Your task to perform on an android device: choose inbox layout in the gmail app Image 0: 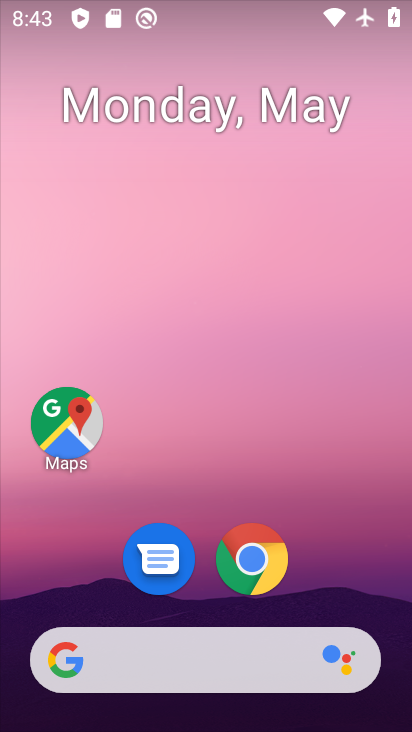
Step 0: drag from (329, 564) to (409, 56)
Your task to perform on an android device: choose inbox layout in the gmail app Image 1: 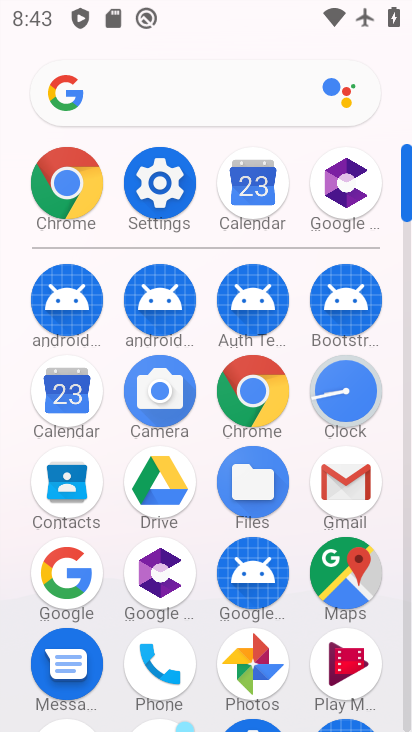
Step 1: click (352, 469)
Your task to perform on an android device: choose inbox layout in the gmail app Image 2: 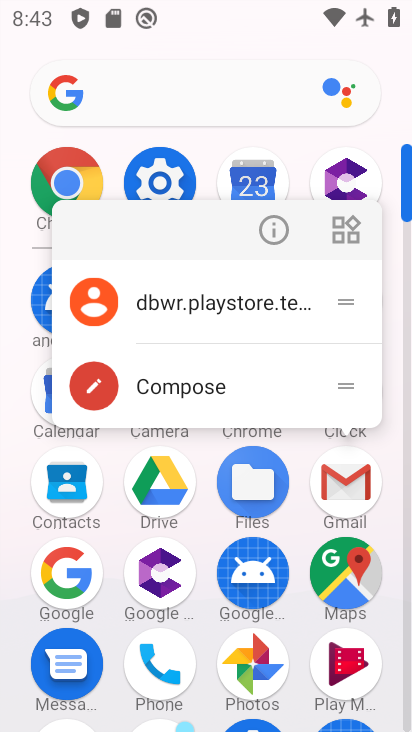
Step 2: click (347, 477)
Your task to perform on an android device: choose inbox layout in the gmail app Image 3: 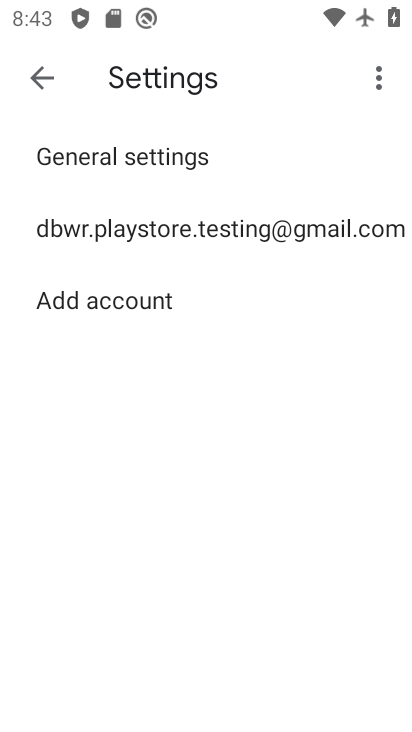
Step 3: click (34, 88)
Your task to perform on an android device: choose inbox layout in the gmail app Image 4: 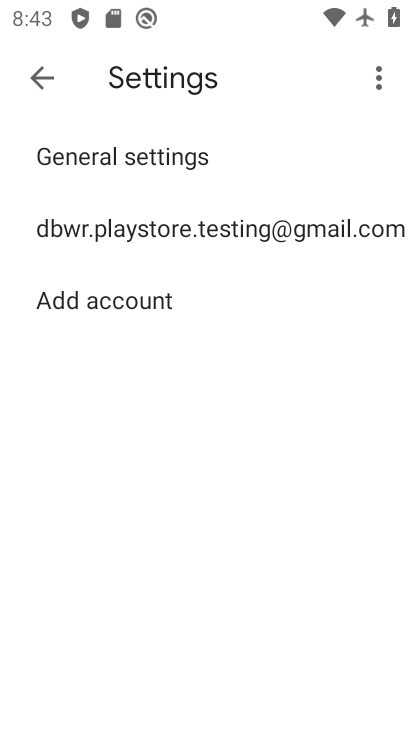
Step 4: click (101, 224)
Your task to perform on an android device: choose inbox layout in the gmail app Image 5: 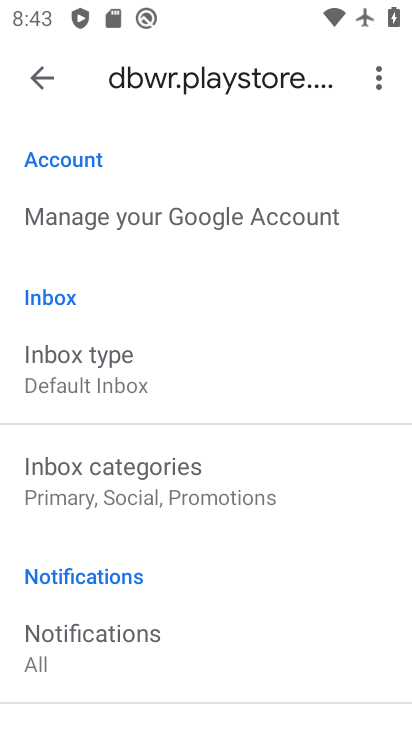
Step 5: click (71, 386)
Your task to perform on an android device: choose inbox layout in the gmail app Image 6: 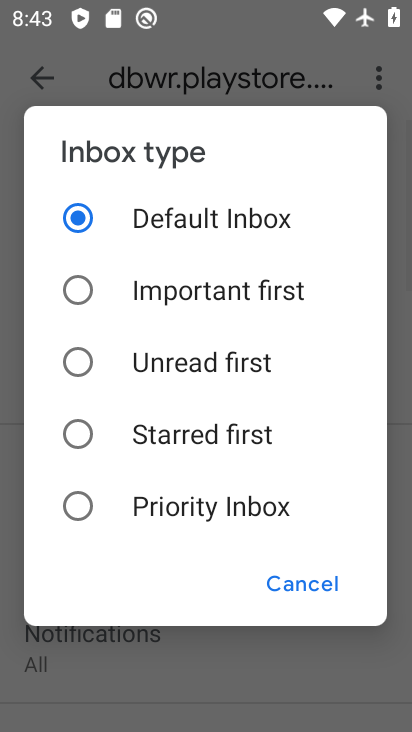
Step 6: click (218, 292)
Your task to perform on an android device: choose inbox layout in the gmail app Image 7: 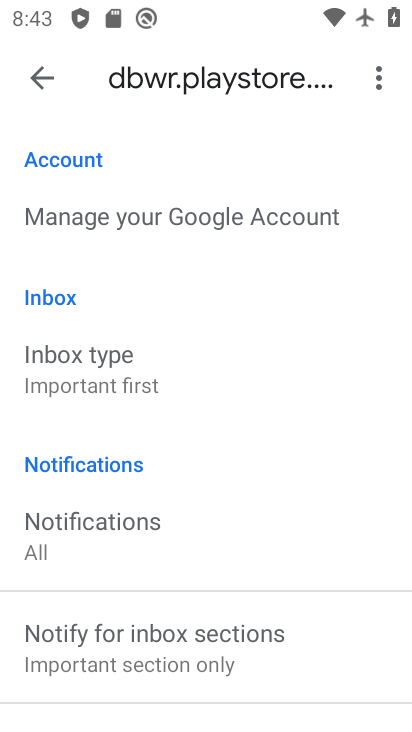
Step 7: task complete